Your task to perform on an android device: toggle priority inbox in the gmail app Image 0: 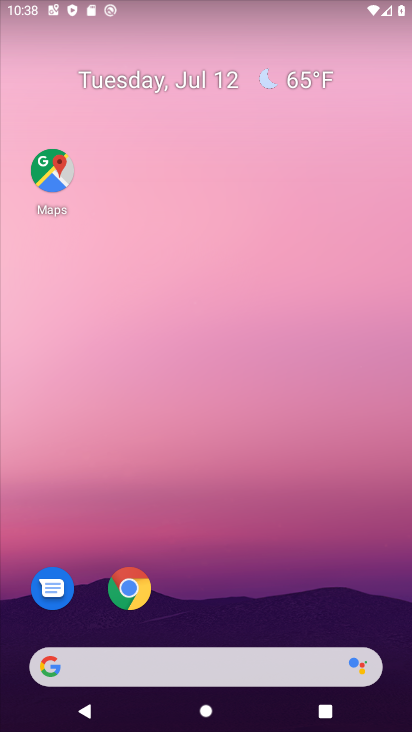
Step 0: click (190, 135)
Your task to perform on an android device: toggle priority inbox in the gmail app Image 1: 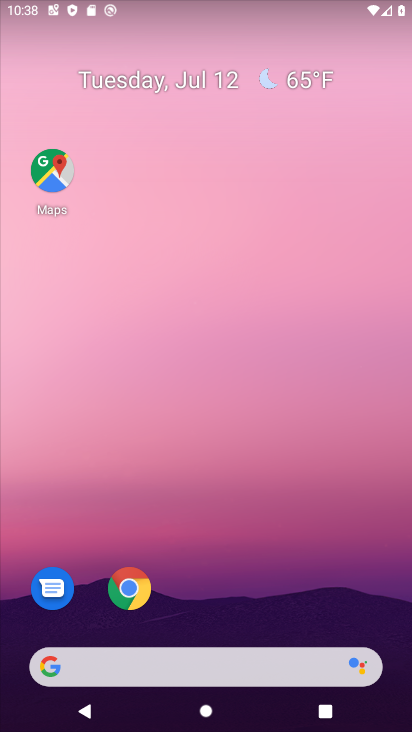
Step 1: click (159, 140)
Your task to perform on an android device: toggle priority inbox in the gmail app Image 2: 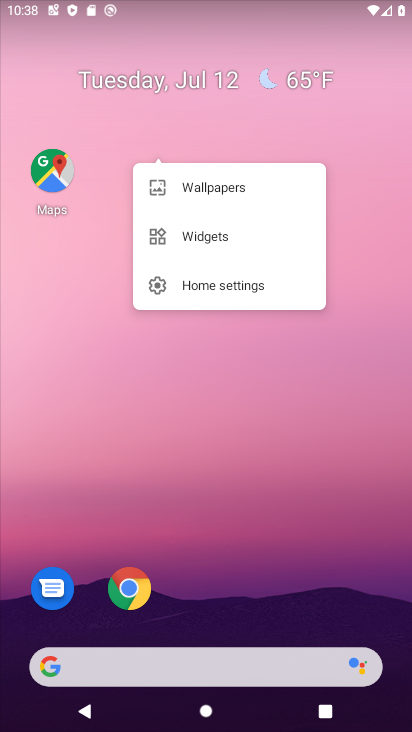
Step 2: drag from (27, 694) to (151, 130)
Your task to perform on an android device: toggle priority inbox in the gmail app Image 3: 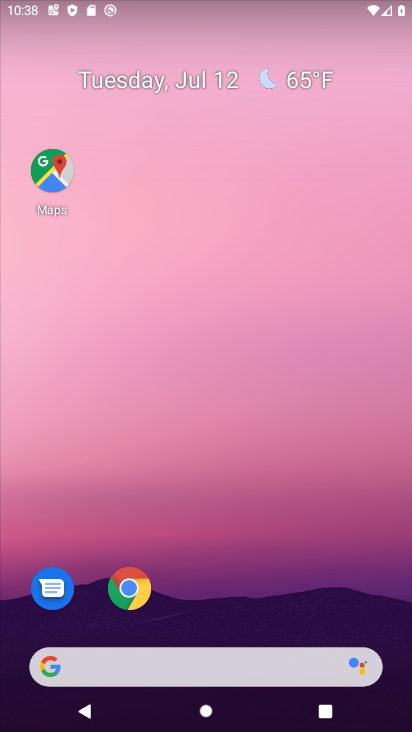
Step 3: drag from (137, 367) to (227, 30)
Your task to perform on an android device: toggle priority inbox in the gmail app Image 4: 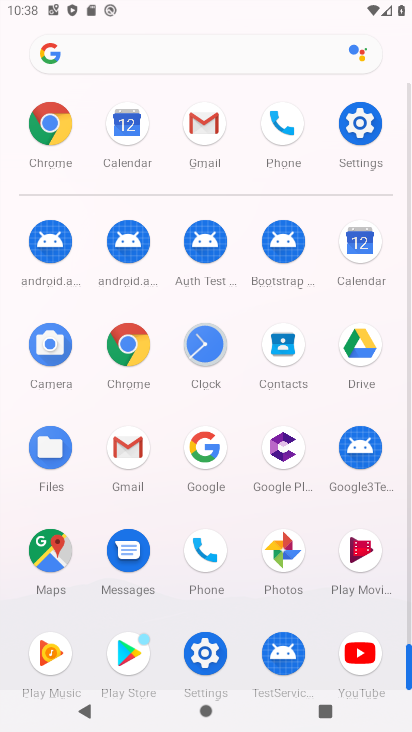
Step 4: click (122, 450)
Your task to perform on an android device: toggle priority inbox in the gmail app Image 5: 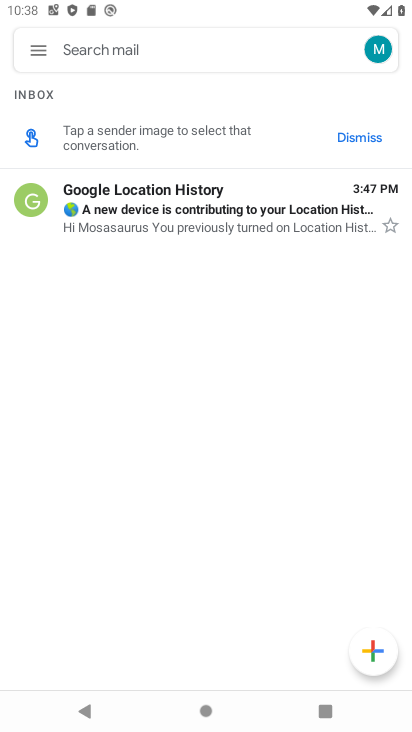
Step 5: click (47, 45)
Your task to perform on an android device: toggle priority inbox in the gmail app Image 6: 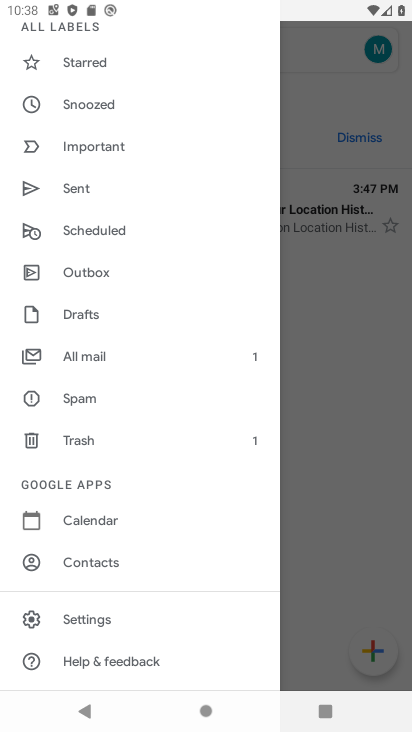
Step 6: click (91, 624)
Your task to perform on an android device: toggle priority inbox in the gmail app Image 7: 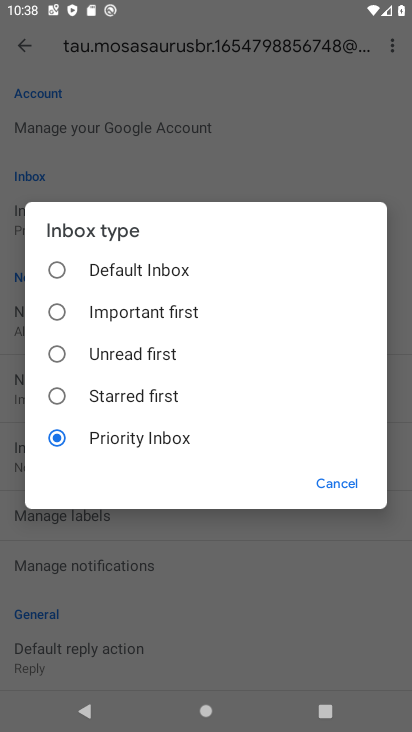
Step 7: click (95, 443)
Your task to perform on an android device: toggle priority inbox in the gmail app Image 8: 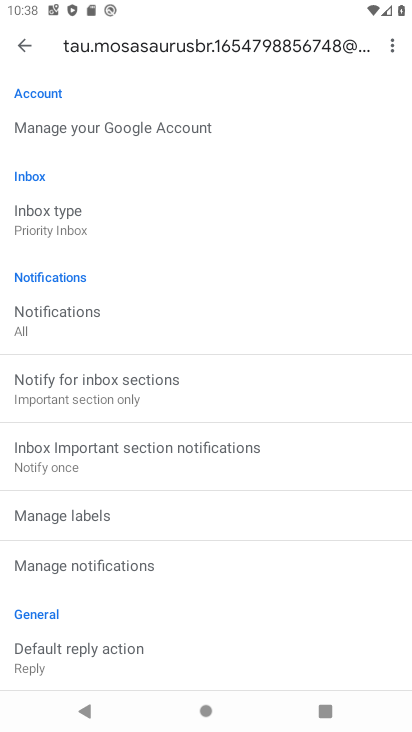
Step 8: task complete